Your task to perform on an android device: Search for pizza restaurants on Maps Image 0: 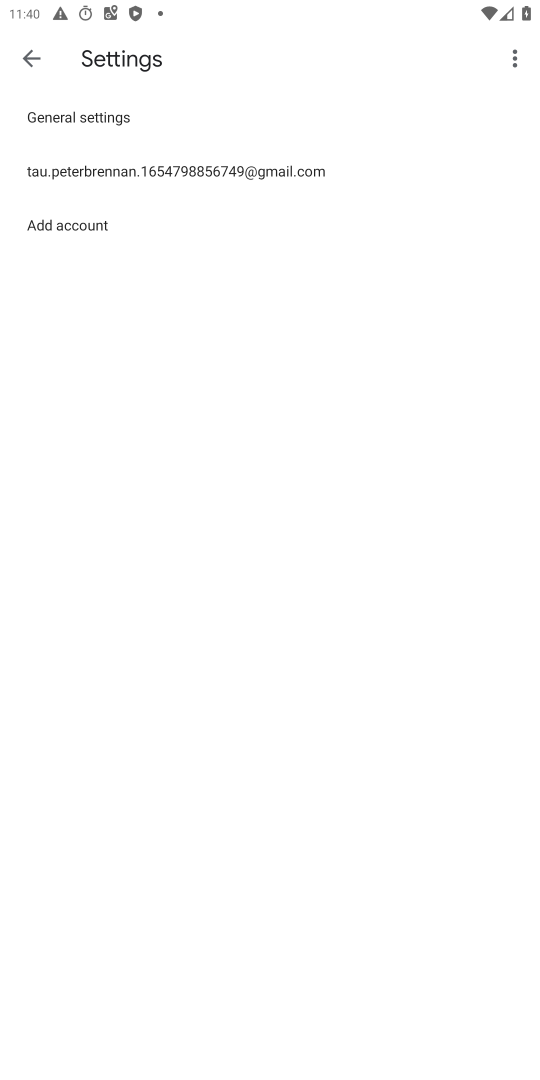
Step 0: press home button
Your task to perform on an android device: Search for pizza restaurants on Maps Image 1: 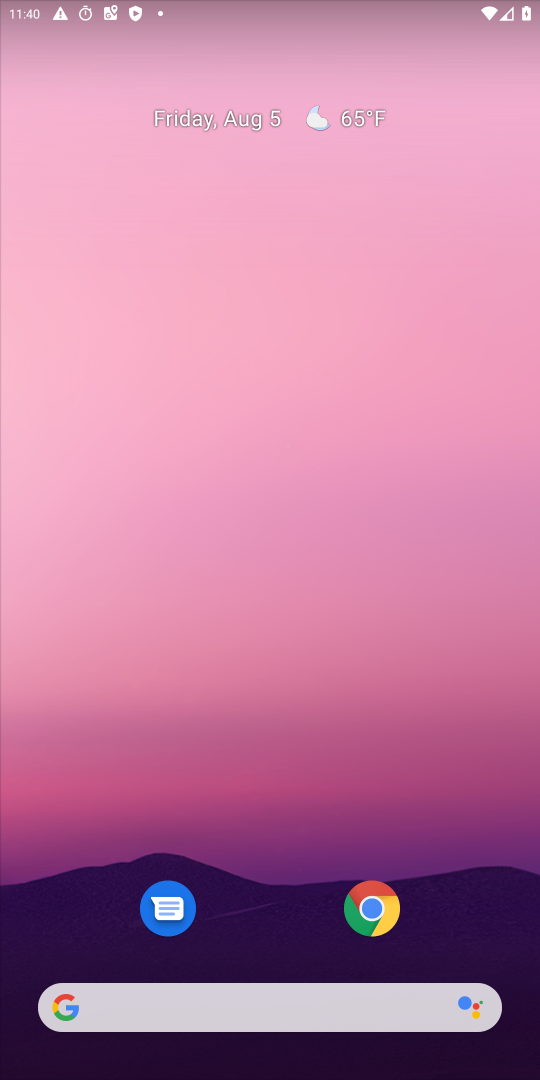
Step 1: drag from (112, 1048) to (249, 438)
Your task to perform on an android device: Search for pizza restaurants on Maps Image 2: 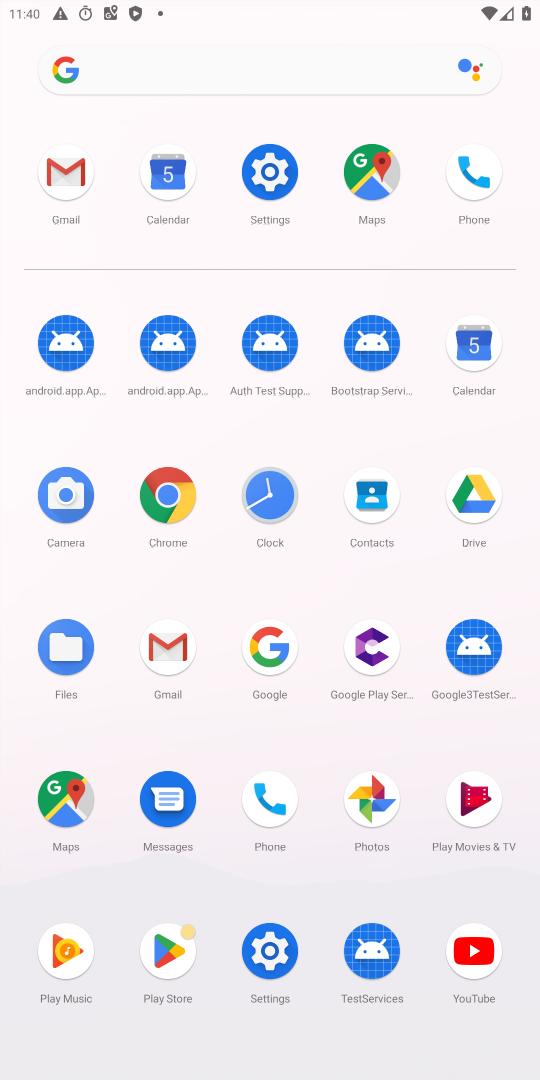
Step 2: click (70, 802)
Your task to perform on an android device: Search for pizza restaurants on Maps Image 3: 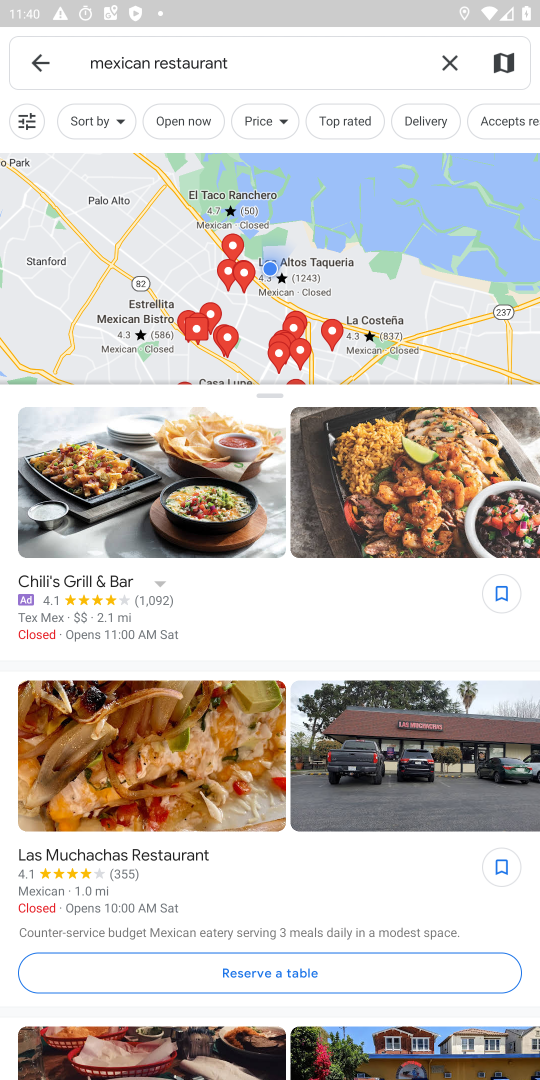
Step 3: click (39, 63)
Your task to perform on an android device: Search for pizza restaurants on Maps Image 4: 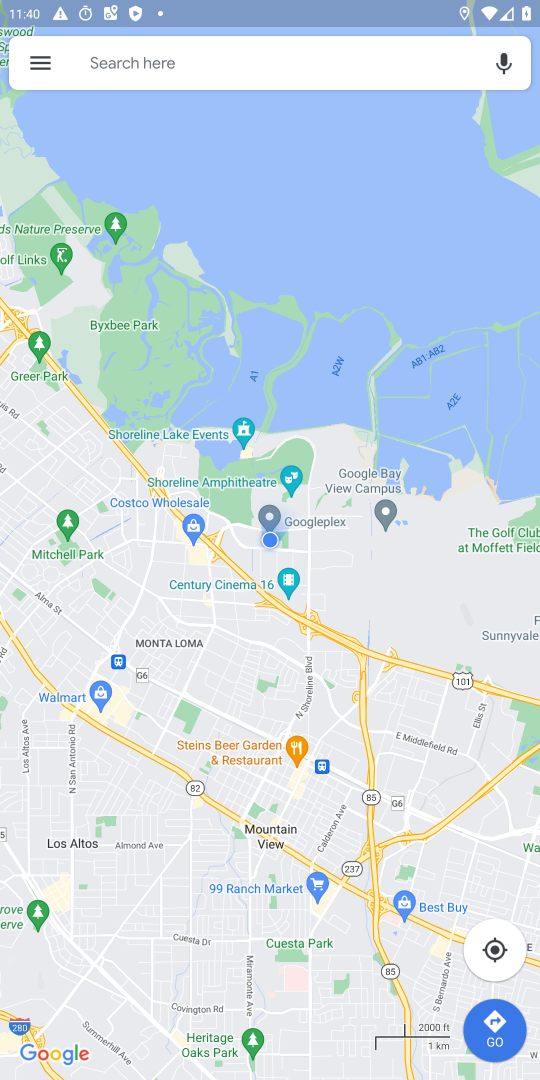
Step 4: click (122, 54)
Your task to perform on an android device: Search for pizza restaurants on Maps Image 5: 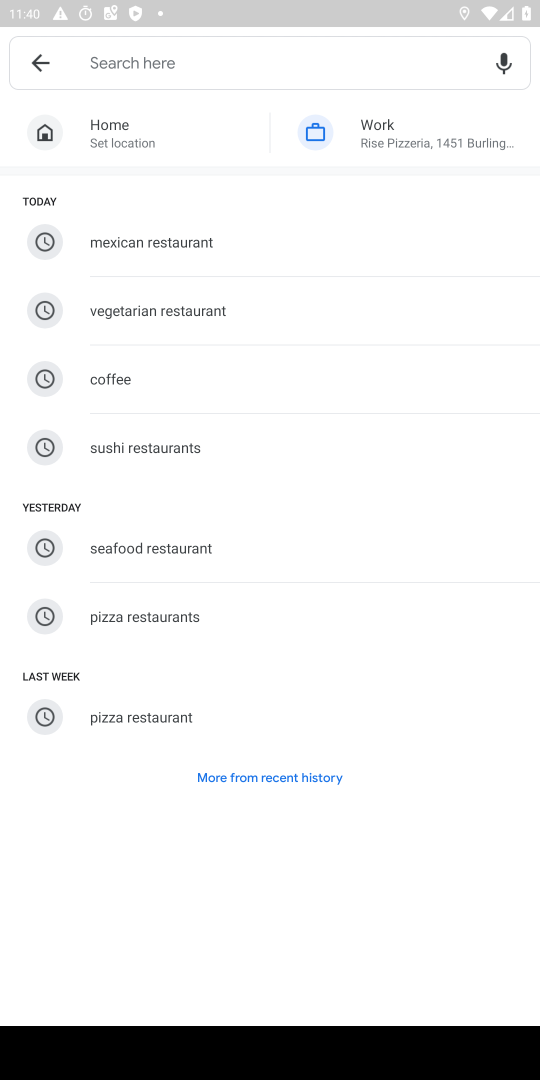
Step 5: click (144, 624)
Your task to perform on an android device: Search for pizza restaurants on Maps Image 6: 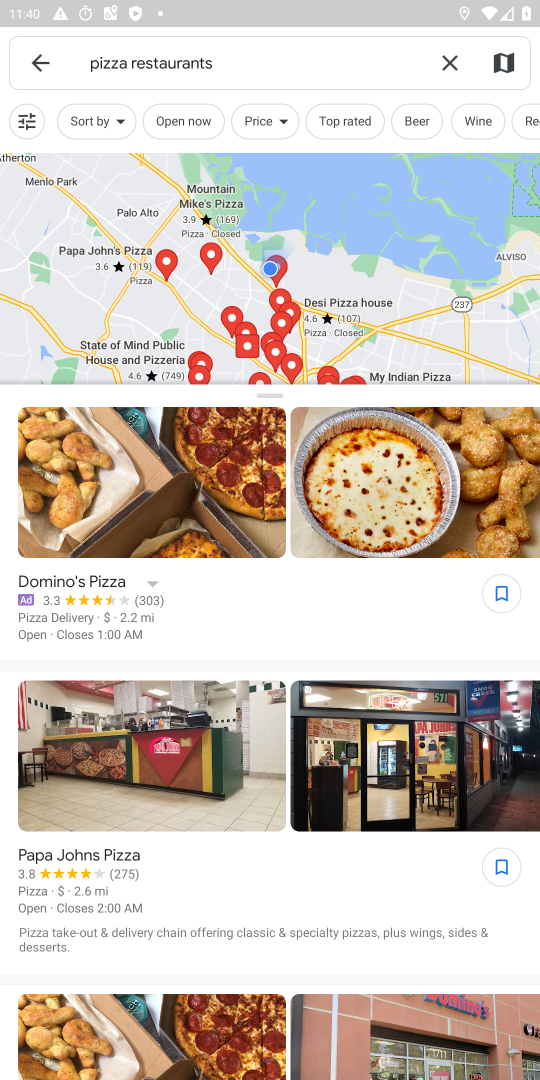
Step 6: task complete